Your task to perform on an android device: turn off translation in the chrome app Image 0: 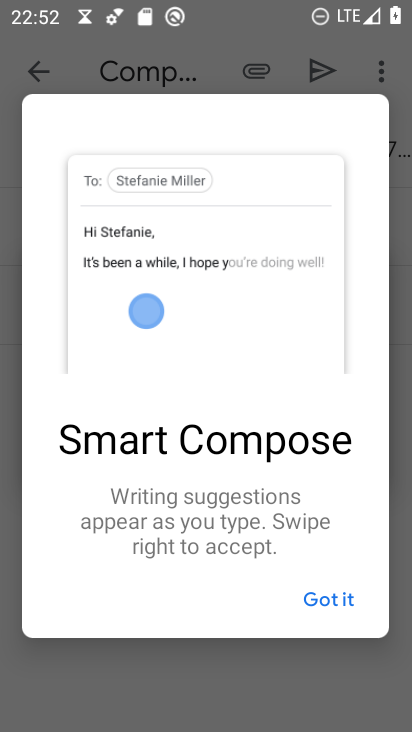
Step 0: press home button
Your task to perform on an android device: turn off translation in the chrome app Image 1: 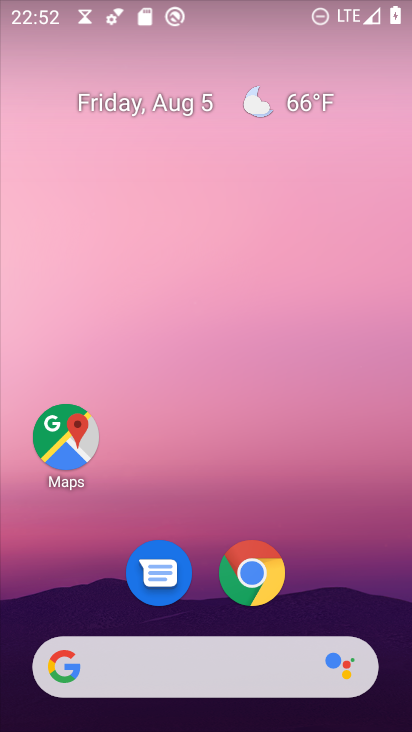
Step 1: click (254, 572)
Your task to perform on an android device: turn off translation in the chrome app Image 2: 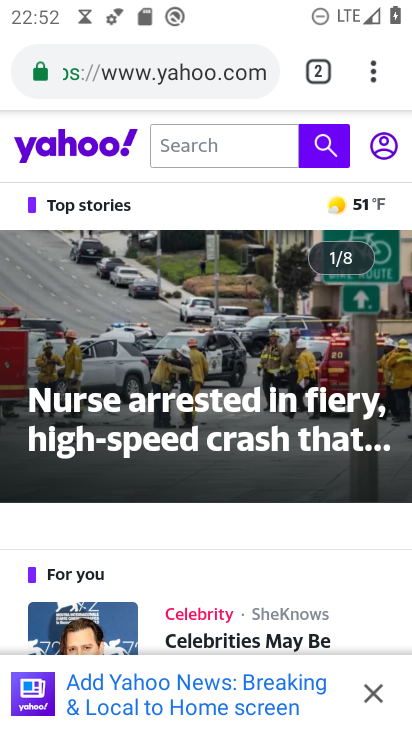
Step 2: click (374, 76)
Your task to perform on an android device: turn off translation in the chrome app Image 3: 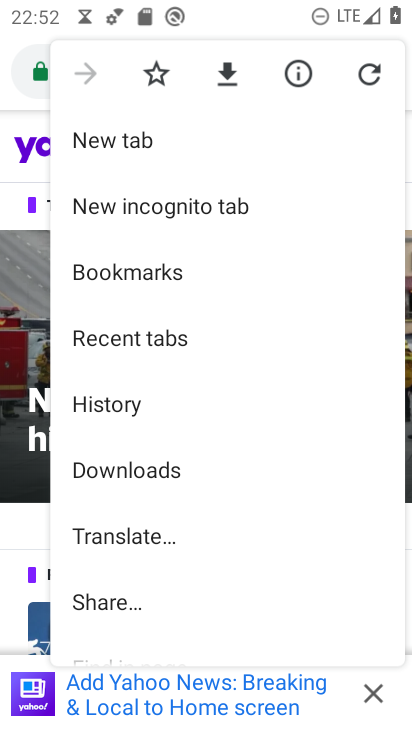
Step 3: drag from (185, 378) to (216, 301)
Your task to perform on an android device: turn off translation in the chrome app Image 4: 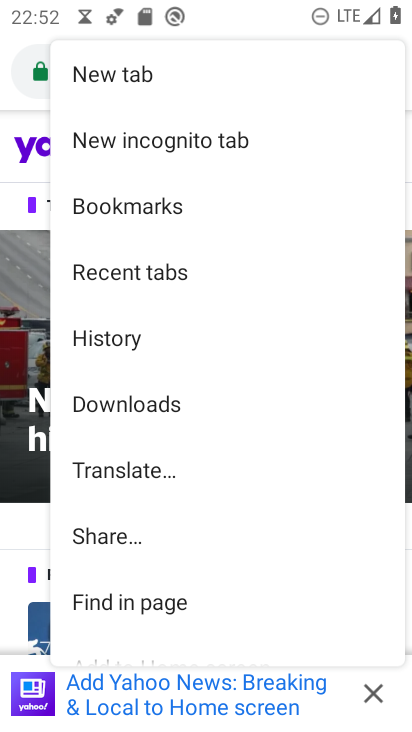
Step 4: drag from (160, 441) to (161, 365)
Your task to perform on an android device: turn off translation in the chrome app Image 5: 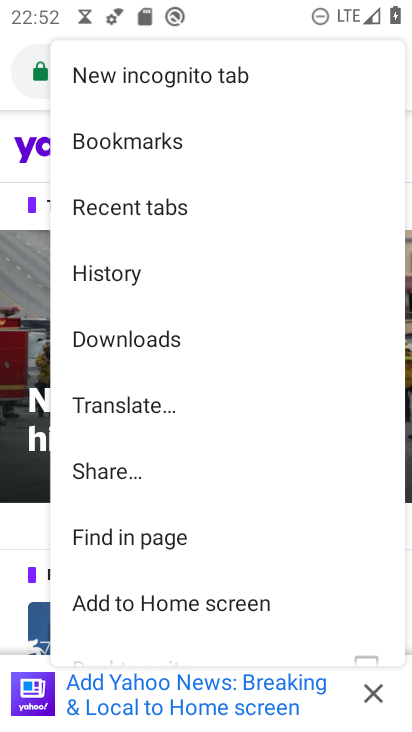
Step 5: drag from (145, 430) to (164, 369)
Your task to perform on an android device: turn off translation in the chrome app Image 6: 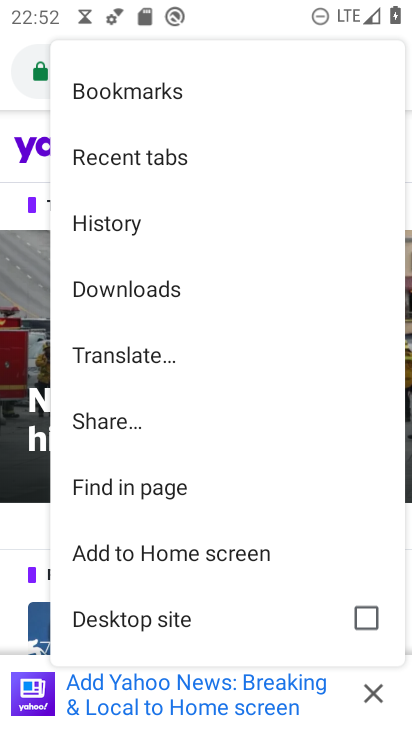
Step 6: drag from (150, 446) to (162, 350)
Your task to perform on an android device: turn off translation in the chrome app Image 7: 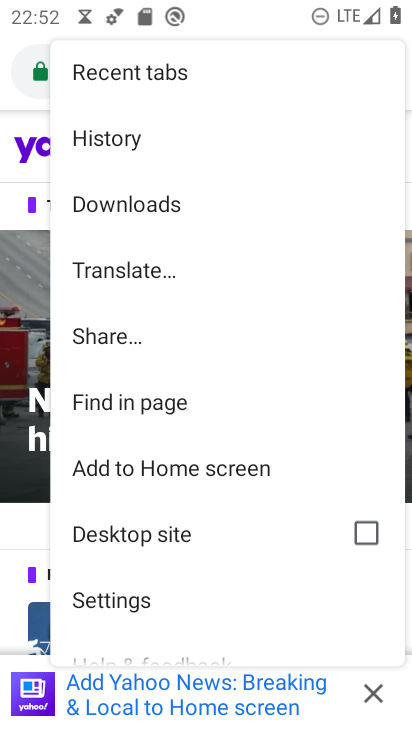
Step 7: drag from (122, 491) to (160, 400)
Your task to perform on an android device: turn off translation in the chrome app Image 8: 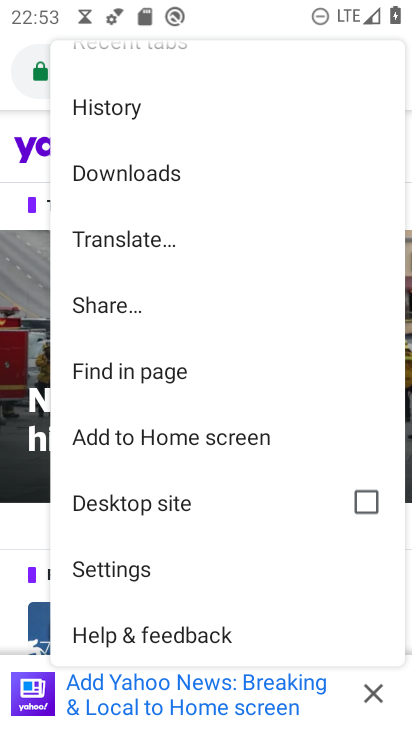
Step 8: click (132, 571)
Your task to perform on an android device: turn off translation in the chrome app Image 9: 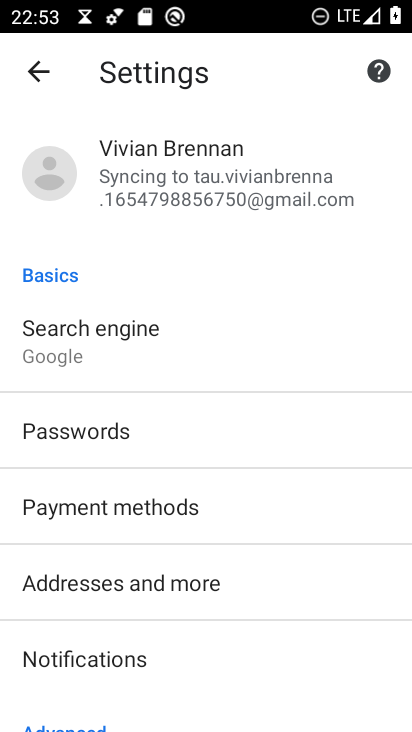
Step 9: drag from (108, 633) to (193, 528)
Your task to perform on an android device: turn off translation in the chrome app Image 10: 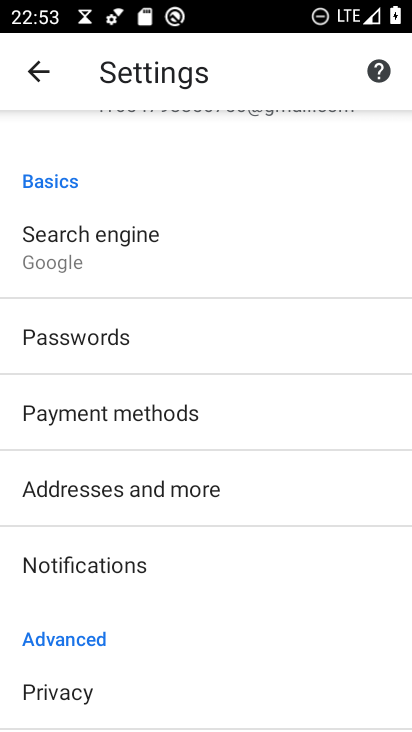
Step 10: drag from (172, 584) to (294, 429)
Your task to perform on an android device: turn off translation in the chrome app Image 11: 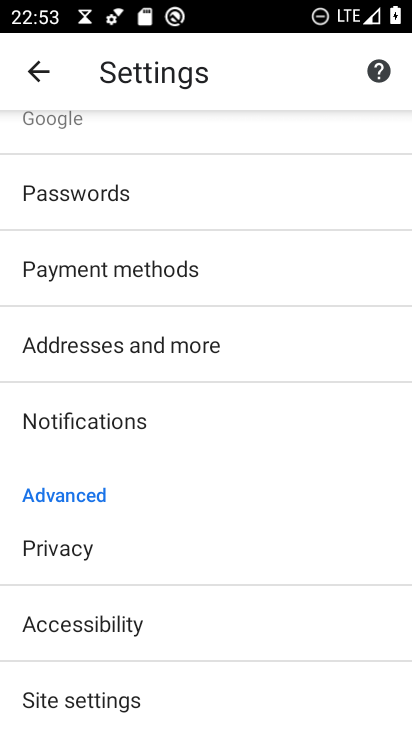
Step 11: drag from (165, 638) to (238, 516)
Your task to perform on an android device: turn off translation in the chrome app Image 12: 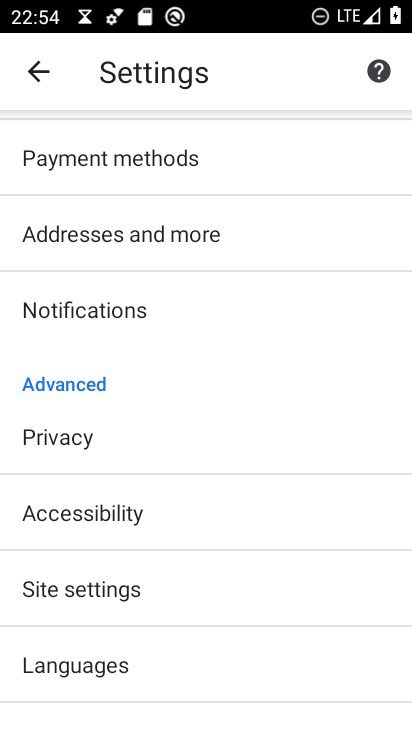
Step 12: click (82, 661)
Your task to perform on an android device: turn off translation in the chrome app Image 13: 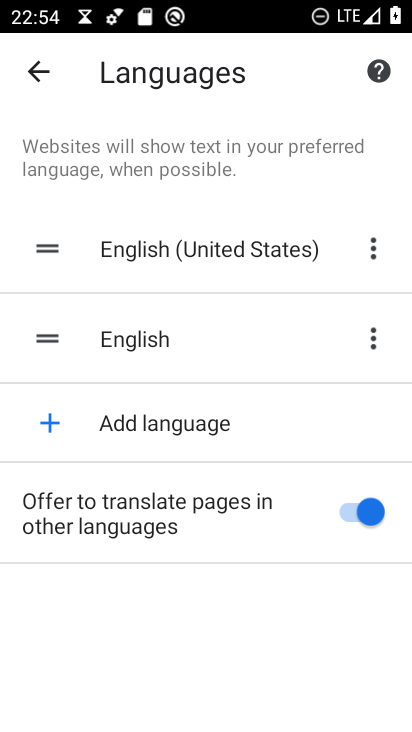
Step 13: click (350, 517)
Your task to perform on an android device: turn off translation in the chrome app Image 14: 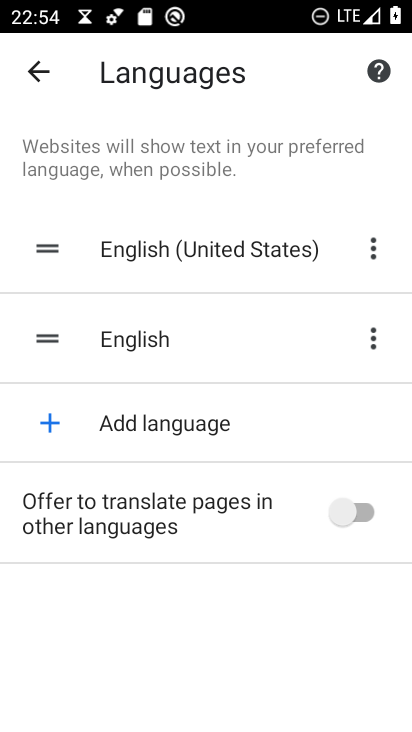
Step 14: task complete